Your task to perform on an android device: Open wifi settings Image 0: 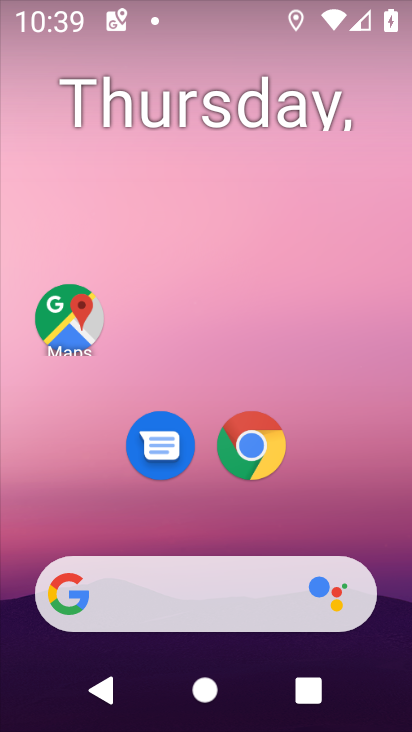
Step 0: drag from (393, 599) to (303, 51)
Your task to perform on an android device: Open wifi settings Image 1: 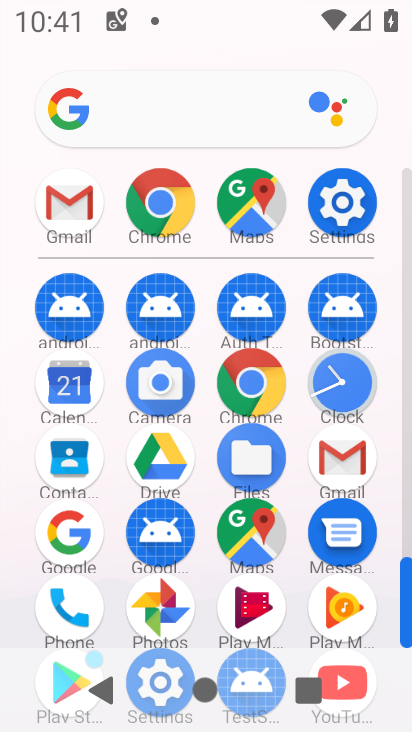
Step 1: click (341, 211)
Your task to perform on an android device: Open wifi settings Image 2: 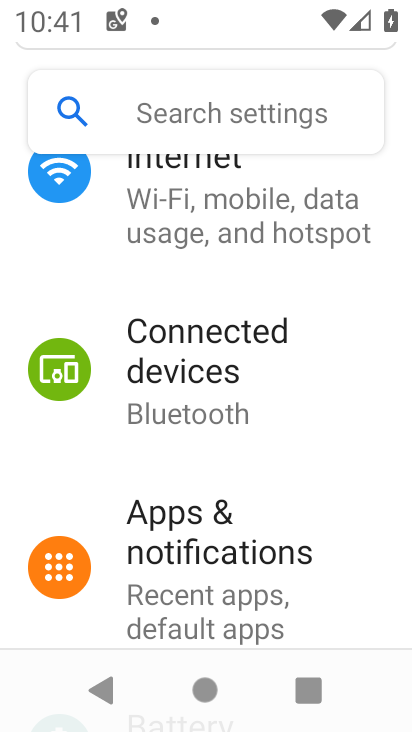
Step 2: drag from (252, 253) to (246, 572)
Your task to perform on an android device: Open wifi settings Image 3: 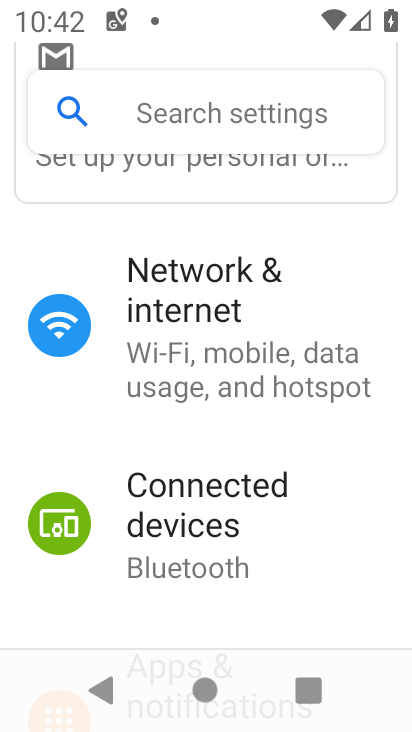
Step 3: click (191, 332)
Your task to perform on an android device: Open wifi settings Image 4: 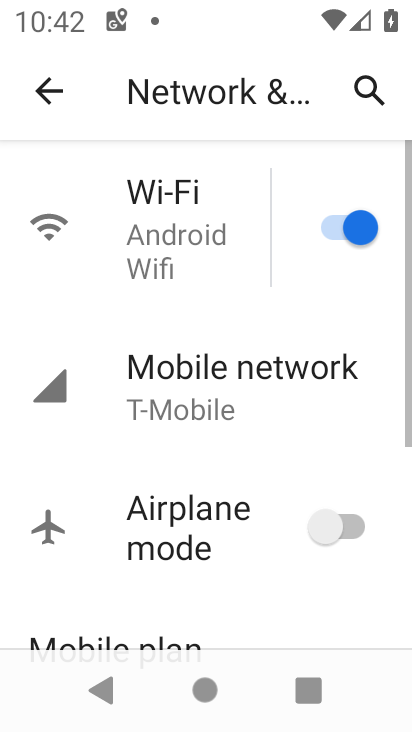
Step 4: click (164, 231)
Your task to perform on an android device: Open wifi settings Image 5: 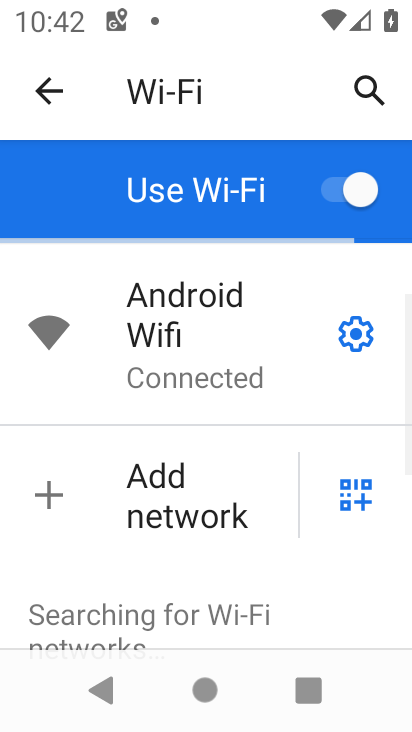
Step 5: task complete